Your task to perform on an android device: Open calendar and show me the third week of next month Image 0: 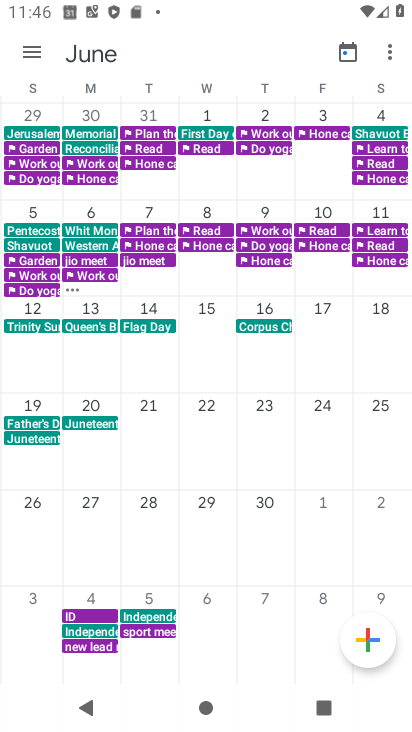
Step 0: task complete